Your task to perform on an android device: allow cookies in the chrome app Image 0: 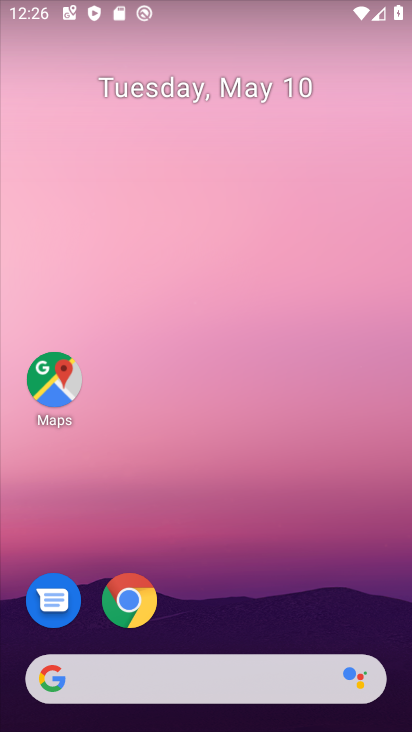
Step 0: click (146, 596)
Your task to perform on an android device: allow cookies in the chrome app Image 1: 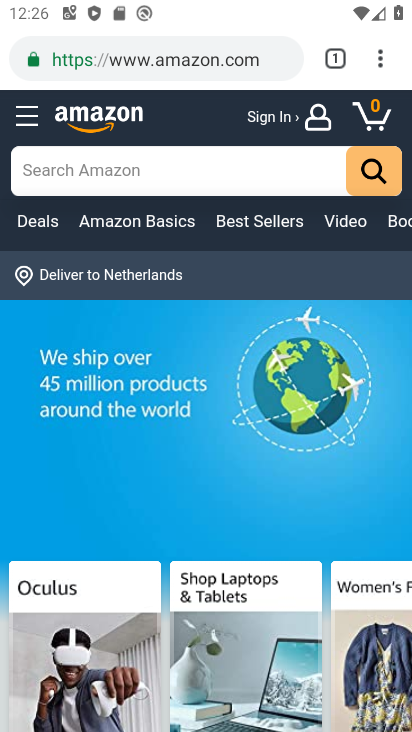
Step 1: click (383, 57)
Your task to perform on an android device: allow cookies in the chrome app Image 2: 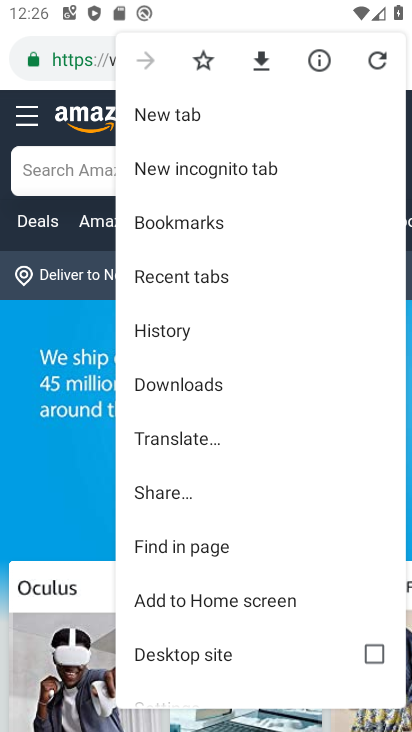
Step 2: drag from (200, 642) to (245, 332)
Your task to perform on an android device: allow cookies in the chrome app Image 3: 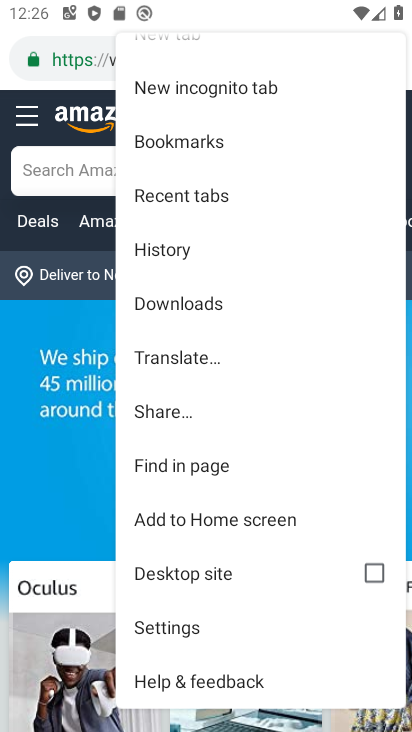
Step 3: click (191, 629)
Your task to perform on an android device: allow cookies in the chrome app Image 4: 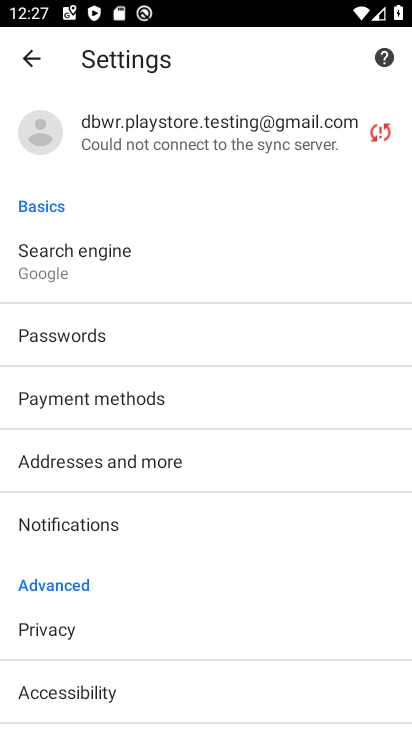
Step 4: drag from (189, 622) to (156, 118)
Your task to perform on an android device: allow cookies in the chrome app Image 5: 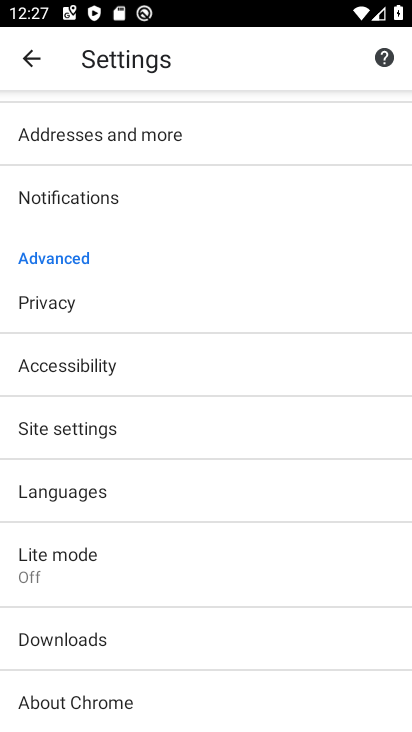
Step 5: click (106, 439)
Your task to perform on an android device: allow cookies in the chrome app Image 6: 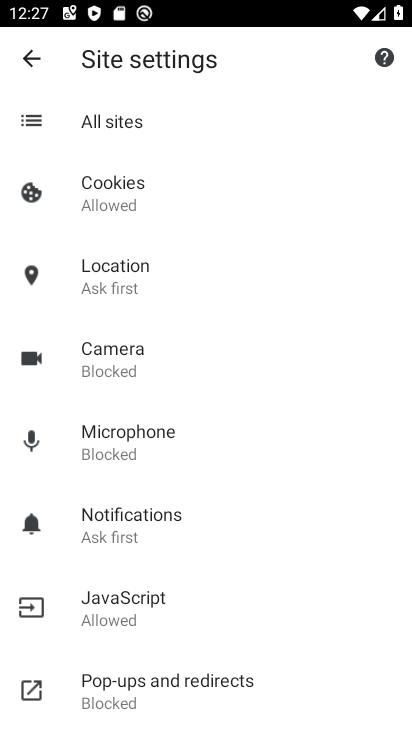
Step 6: click (132, 217)
Your task to perform on an android device: allow cookies in the chrome app Image 7: 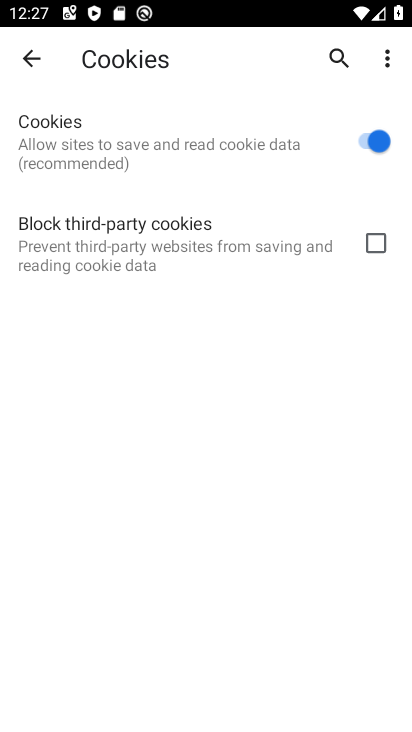
Step 7: task complete